Your task to perform on an android device: snooze an email in the gmail app Image 0: 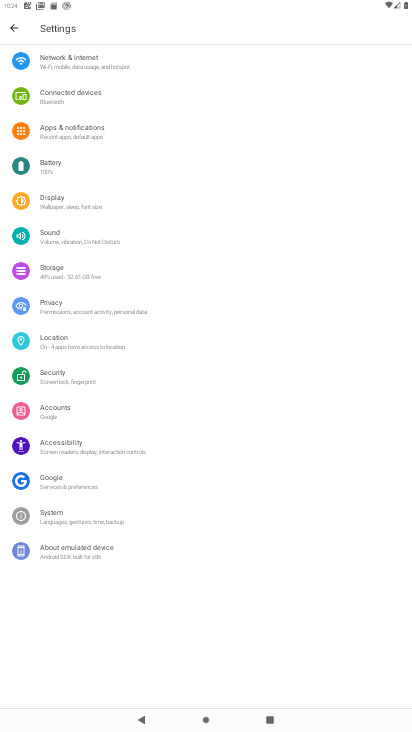
Step 0: press home button
Your task to perform on an android device: snooze an email in the gmail app Image 1: 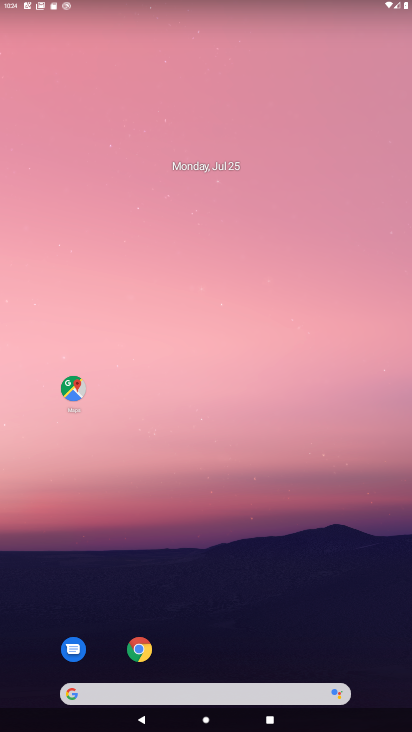
Step 1: drag from (381, 654) to (338, 145)
Your task to perform on an android device: snooze an email in the gmail app Image 2: 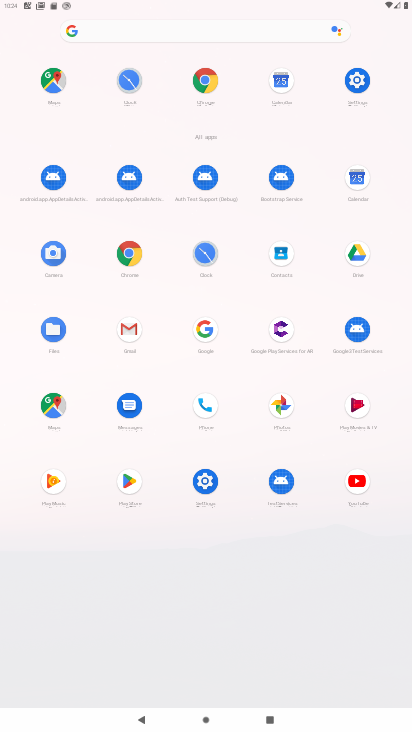
Step 2: click (128, 332)
Your task to perform on an android device: snooze an email in the gmail app Image 3: 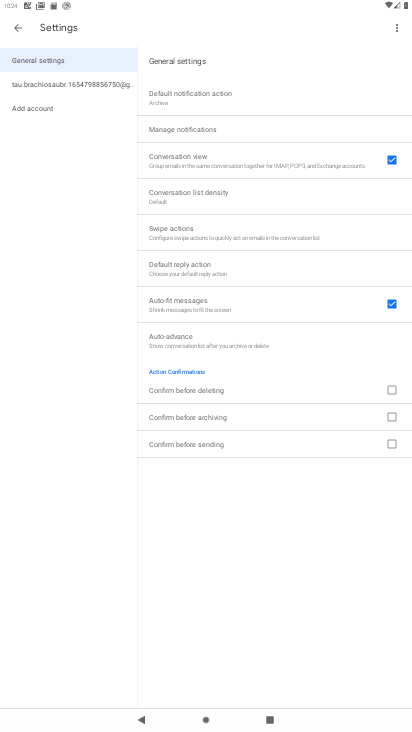
Step 3: press back button
Your task to perform on an android device: snooze an email in the gmail app Image 4: 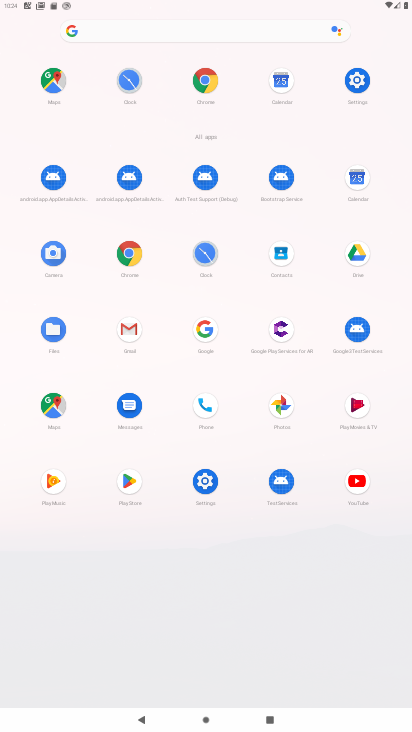
Step 4: click (125, 327)
Your task to perform on an android device: snooze an email in the gmail app Image 5: 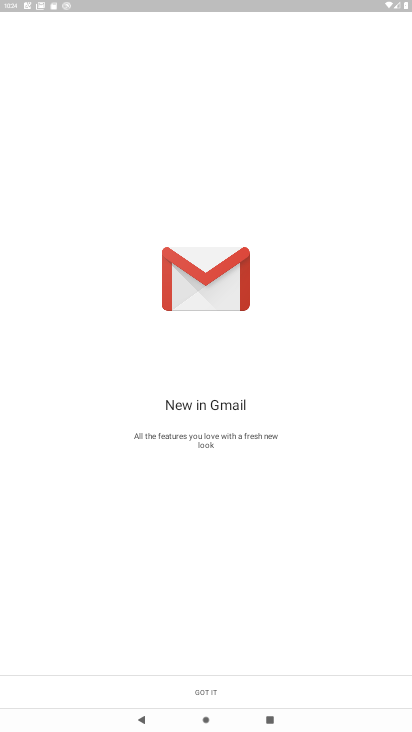
Step 5: click (211, 688)
Your task to perform on an android device: snooze an email in the gmail app Image 6: 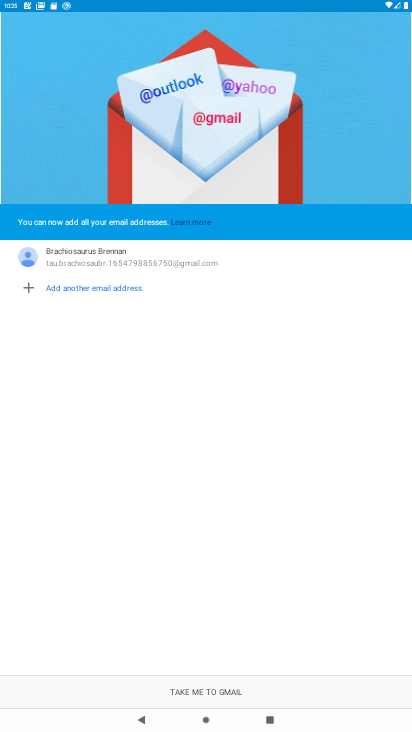
Step 6: click (204, 691)
Your task to perform on an android device: snooze an email in the gmail app Image 7: 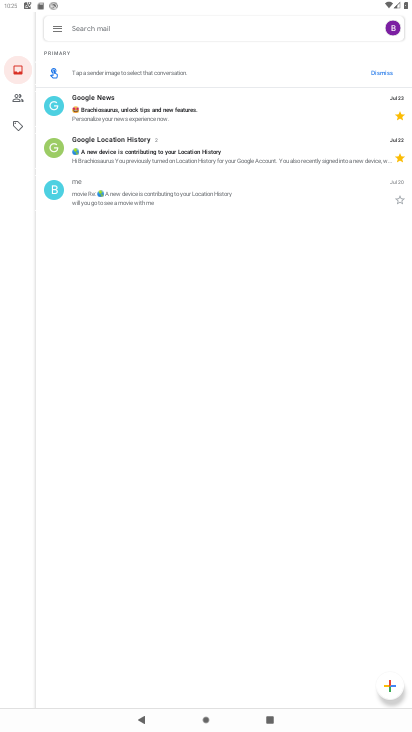
Step 7: click (196, 97)
Your task to perform on an android device: snooze an email in the gmail app Image 8: 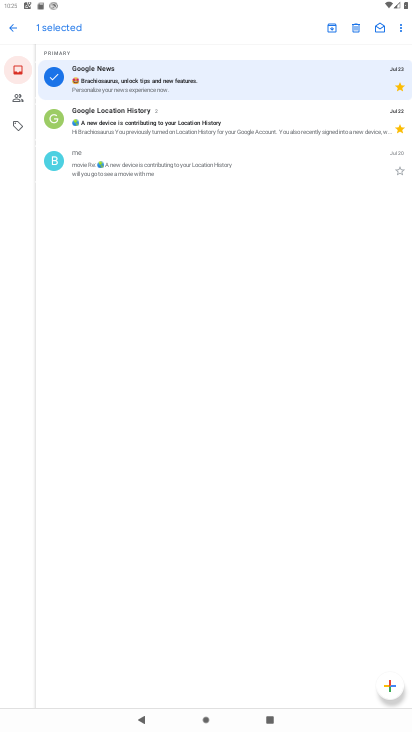
Step 8: click (402, 31)
Your task to perform on an android device: snooze an email in the gmail app Image 9: 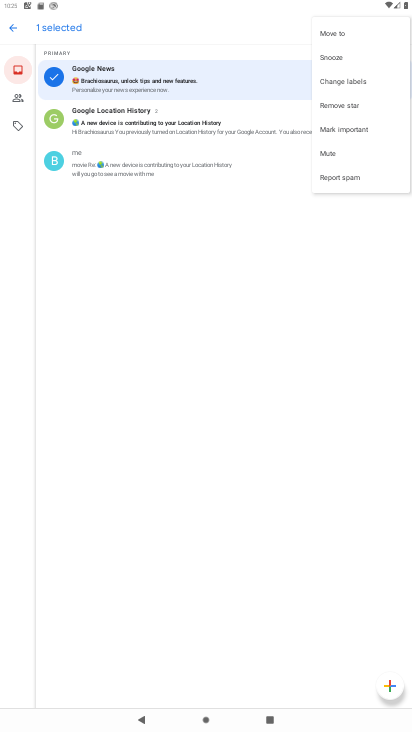
Step 9: click (334, 51)
Your task to perform on an android device: snooze an email in the gmail app Image 10: 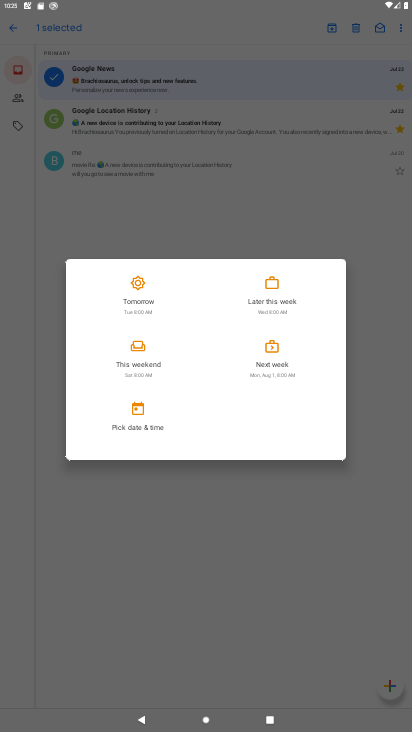
Step 10: click (146, 291)
Your task to perform on an android device: snooze an email in the gmail app Image 11: 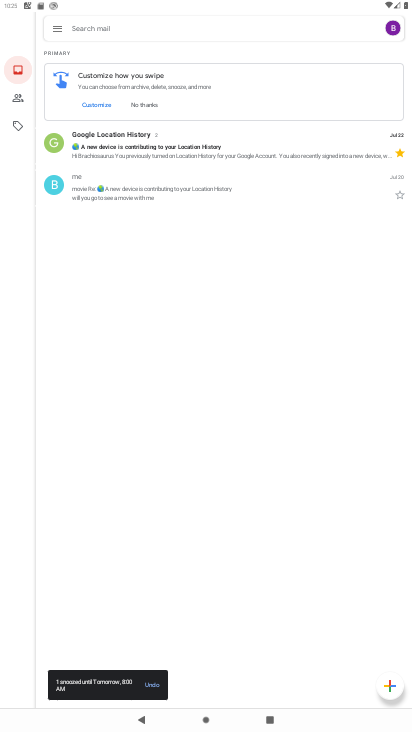
Step 11: task complete